Your task to perform on an android device: Is it going to rain today? Image 0: 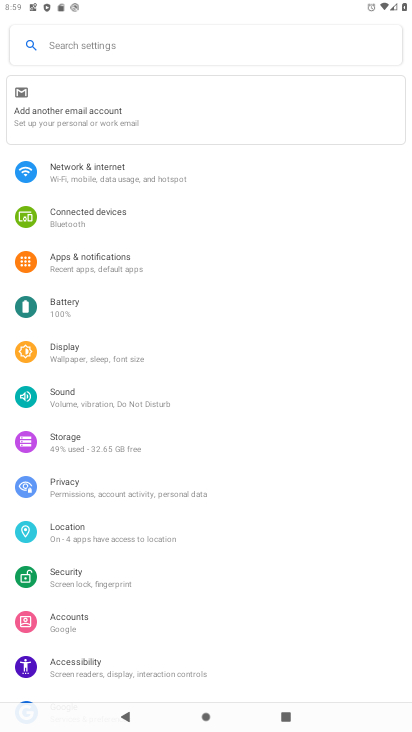
Step 0: press home button
Your task to perform on an android device: Is it going to rain today? Image 1: 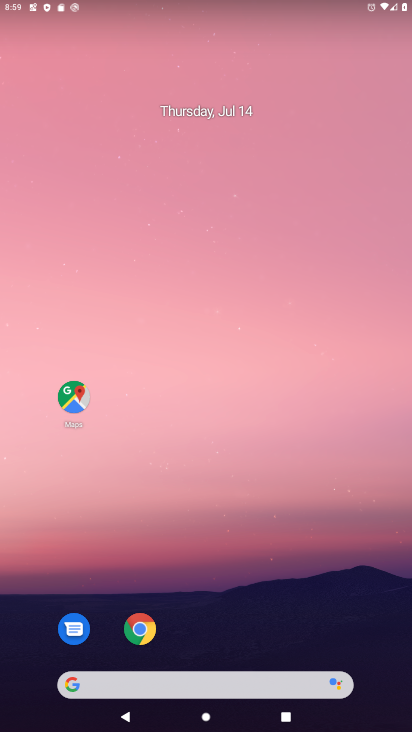
Step 1: click (166, 686)
Your task to perform on an android device: Is it going to rain today? Image 2: 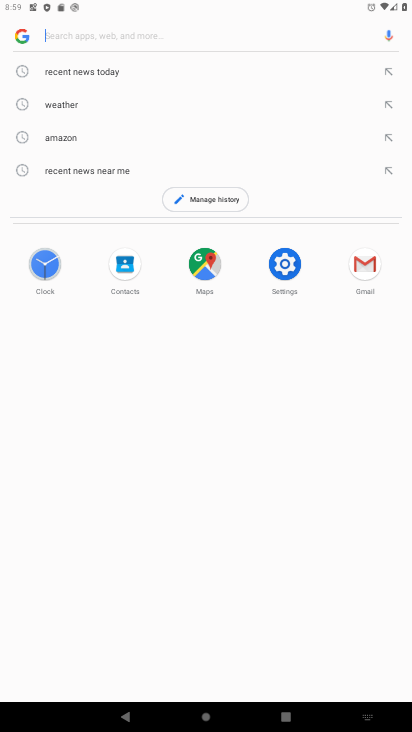
Step 2: type "is it going to rain today ?"
Your task to perform on an android device: Is it going to rain today? Image 3: 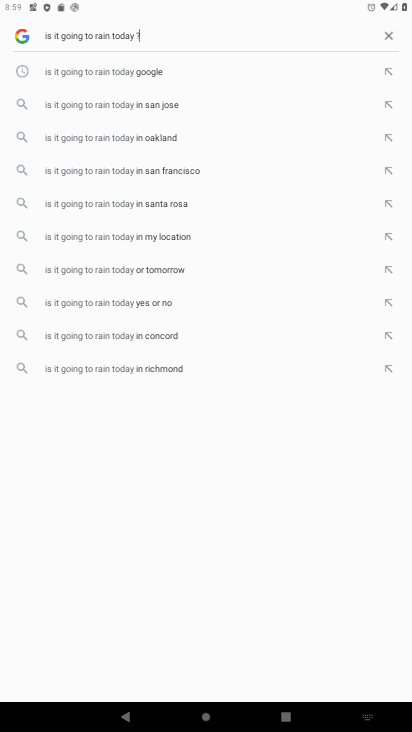
Step 3: click (184, 74)
Your task to perform on an android device: Is it going to rain today? Image 4: 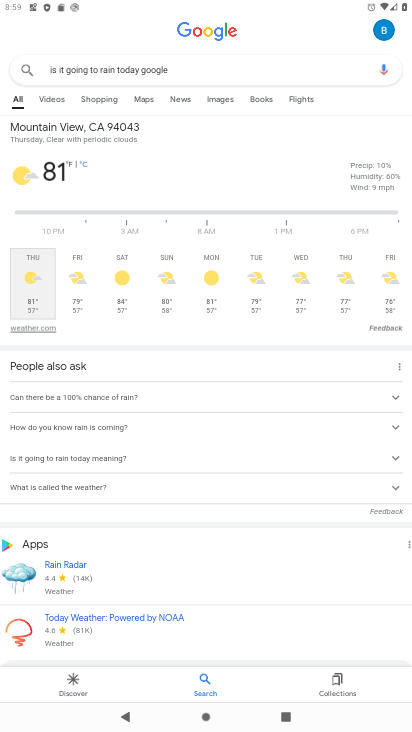
Step 4: task complete